Your task to perform on an android device: turn off priority inbox in the gmail app Image 0: 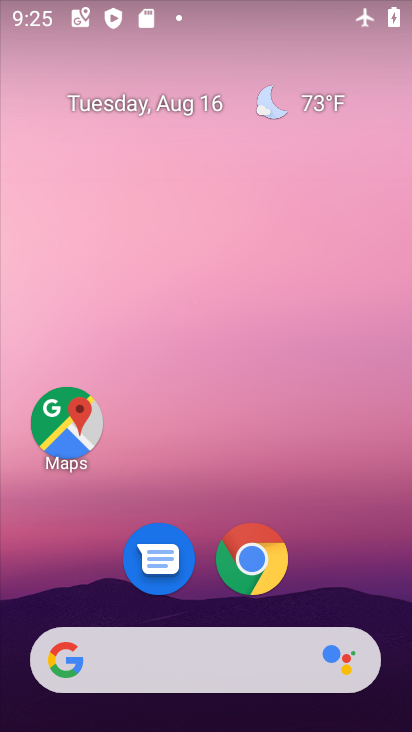
Step 0: drag from (349, 573) to (333, 22)
Your task to perform on an android device: turn off priority inbox in the gmail app Image 1: 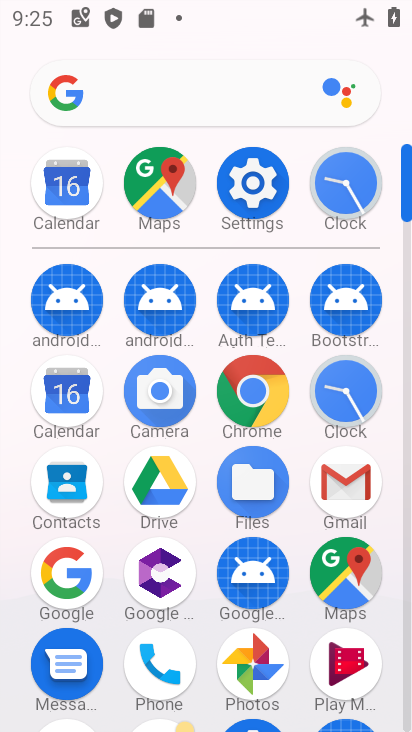
Step 1: click (342, 479)
Your task to perform on an android device: turn off priority inbox in the gmail app Image 2: 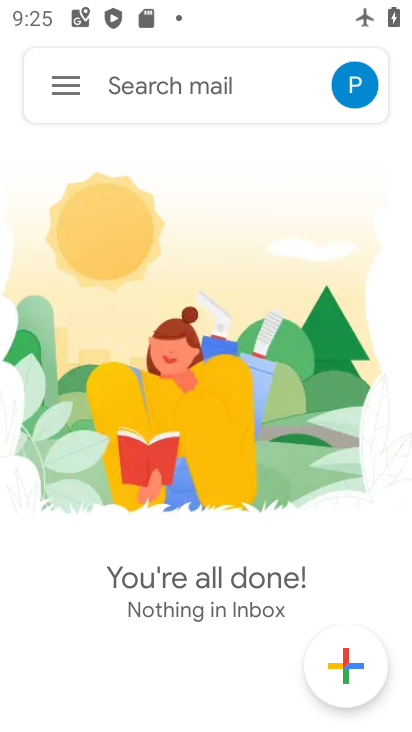
Step 2: click (64, 90)
Your task to perform on an android device: turn off priority inbox in the gmail app Image 3: 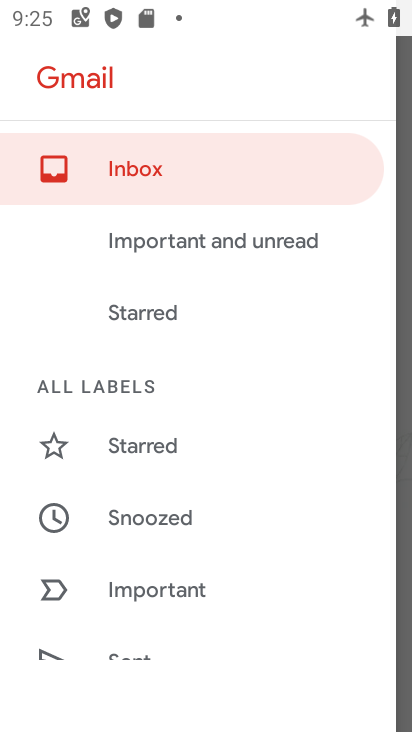
Step 3: drag from (221, 555) to (210, 141)
Your task to perform on an android device: turn off priority inbox in the gmail app Image 4: 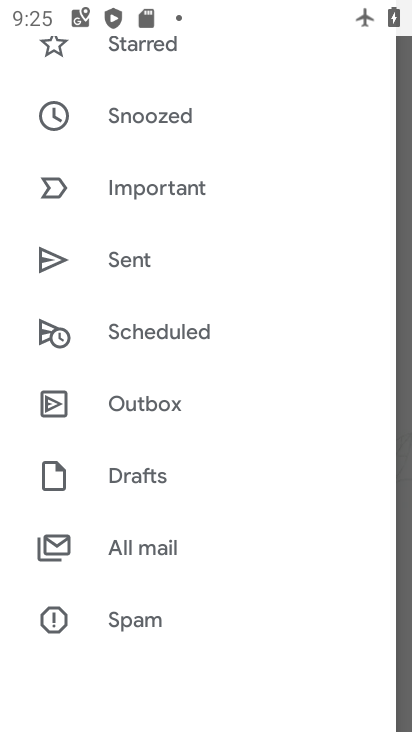
Step 4: drag from (224, 616) to (226, 68)
Your task to perform on an android device: turn off priority inbox in the gmail app Image 5: 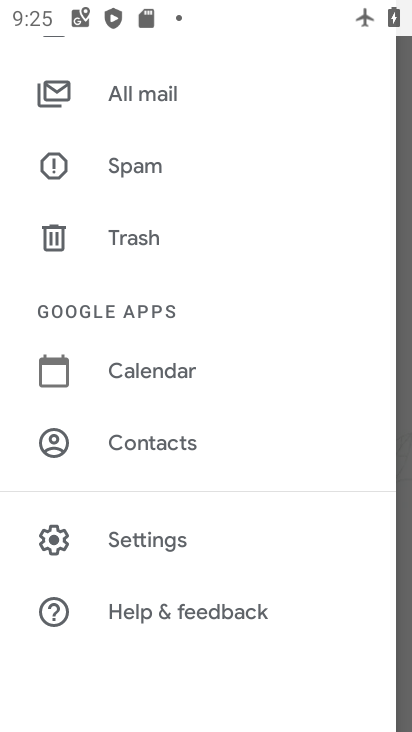
Step 5: click (140, 545)
Your task to perform on an android device: turn off priority inbox in the gmail app Image 6: 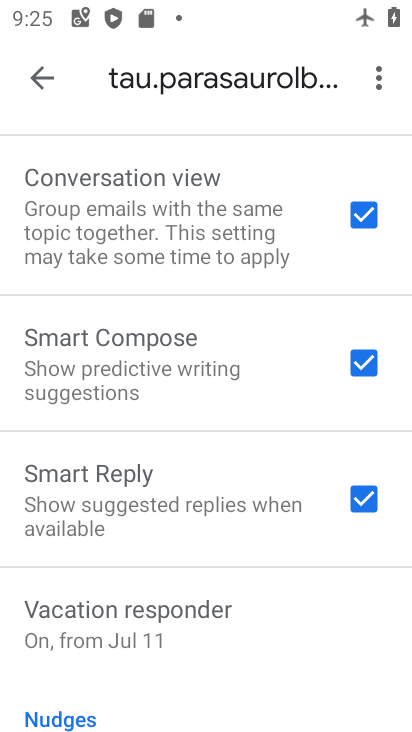
Step 6: drag from (255, 649) to (255, 147)
Your task to perform on an android device: turn off priority inbox in the gmail app Image 7: 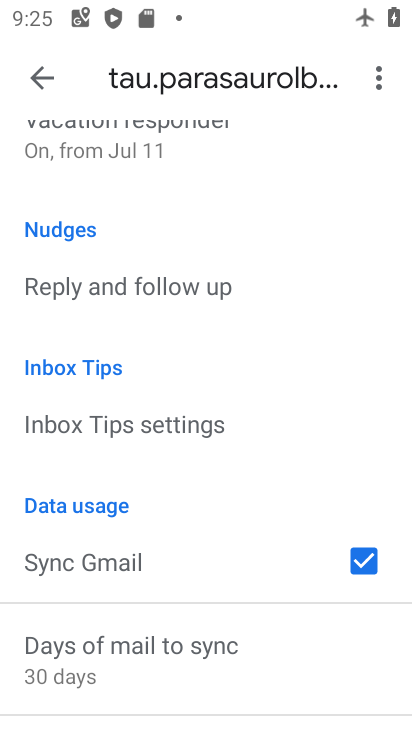
Step 7: drag from (223, 532) to (212, 173)
Your task to perform on an android device: turn off priority inbox in the gmail app Image 8: 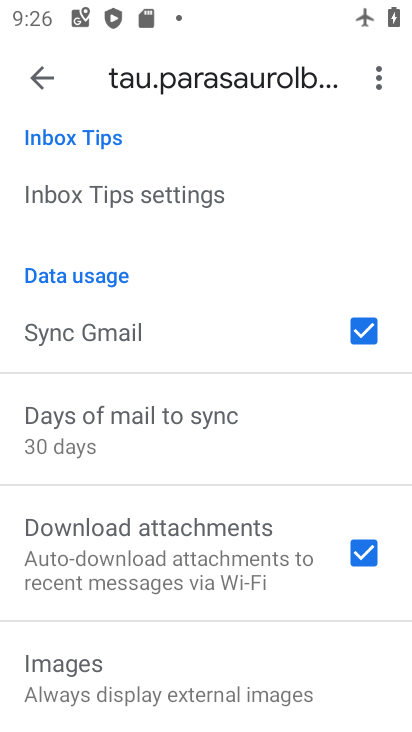
Step 8: drag from (150, 621) to (156, 143)
Your task to perform on an android device: turn off priority inbox in the gmail app Image 9: 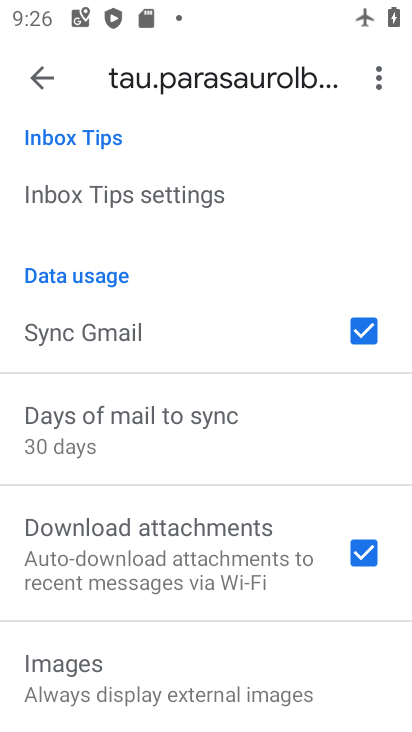
Step 9: drag from (207, 588) to (220, 120)
Your task to perform on an android device: turn off priority inbox in the gmail app Image 10: 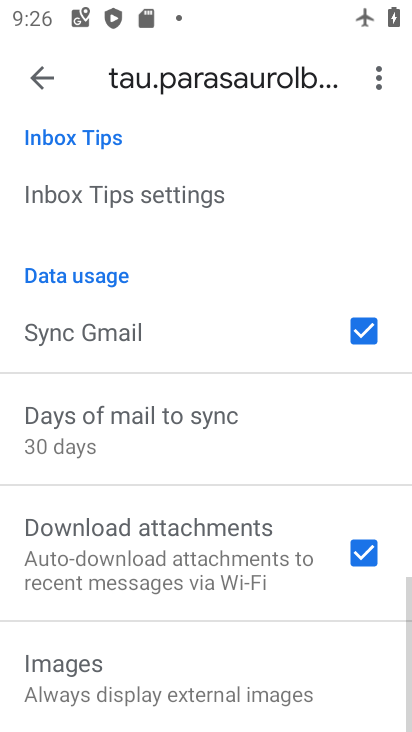
Step 10: drag from (211, 686) to (205, 221)
Your task to perform on an android device: turn off priority inbox in the gmail app Image 11: 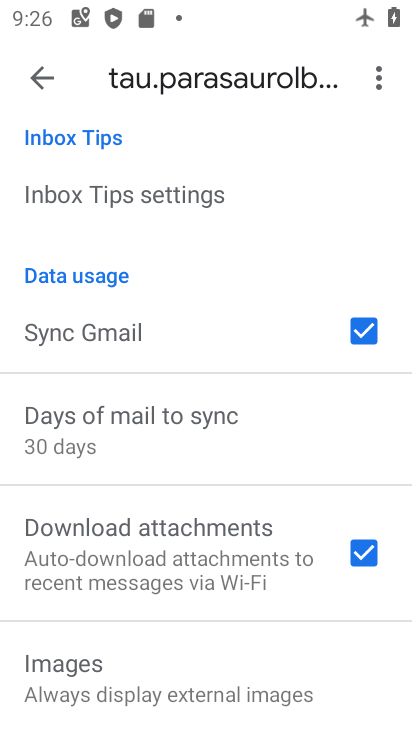
Step 11: click (32, 73)
Your task to perform on an android device: turn off priority inbox in the gmail app Image 12: 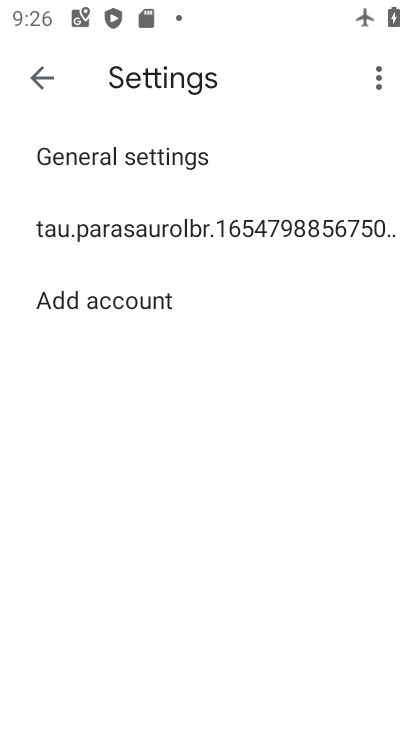
Step 12: click (186, 232)
Your task to perform on an android device: turn off priority inbox in the gmail app Image 13: 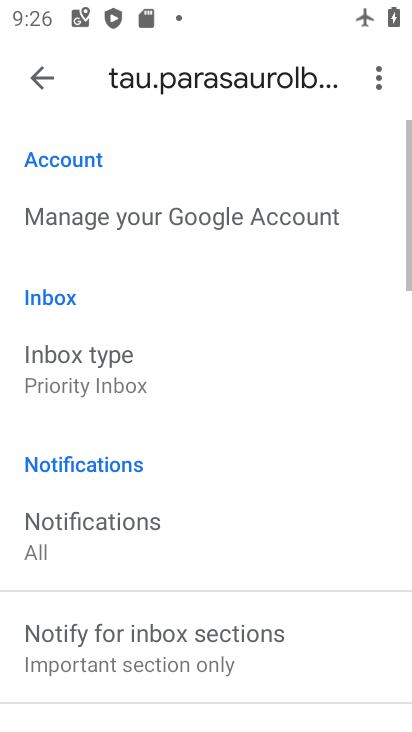
Step 13: click (72, 394)
Your task to perform on an android device: turn off priority inbox in the gmail app Image 14: 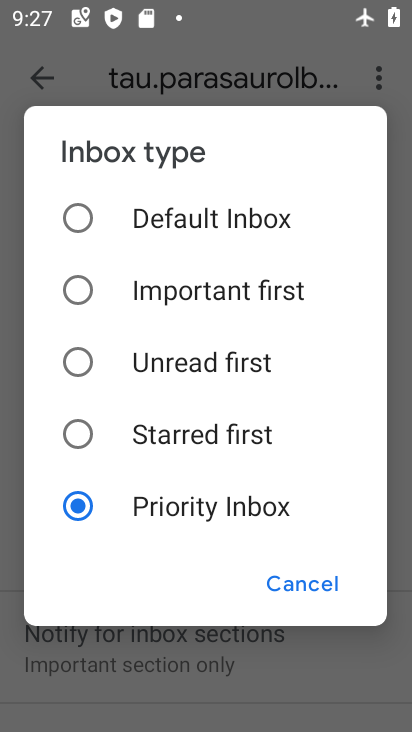
Step 14: click (162, 221)
Your task to perform on an android device: turn off priority inbox in the gmail app Image 15: 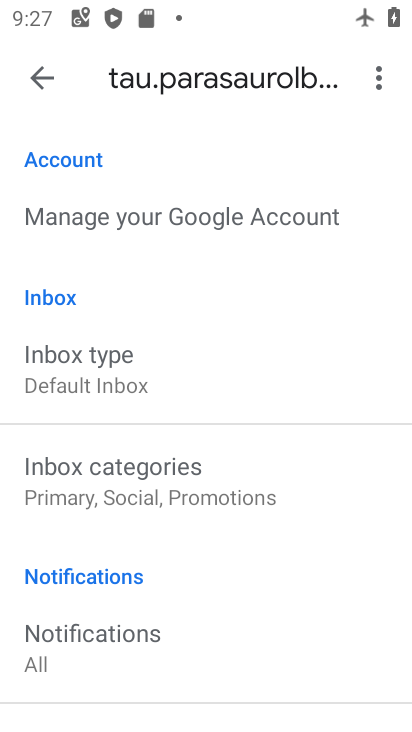
Step 15: task complete